Your task to perform on an android device: Go to notification settings Image 0: 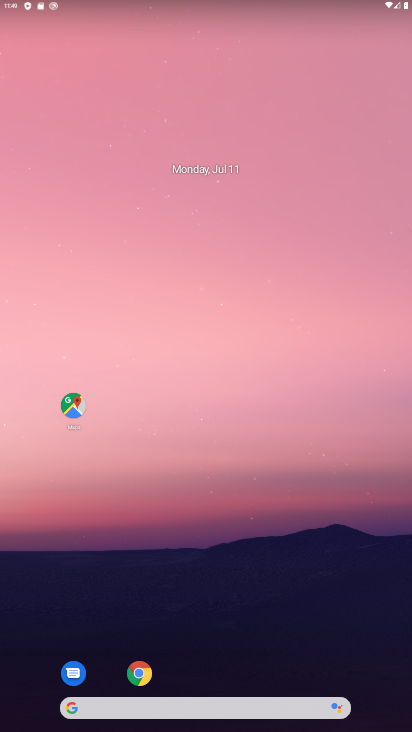
Step 0: click (219, 111)
Your task to perform on an android device: Go to notification settings Image 1: 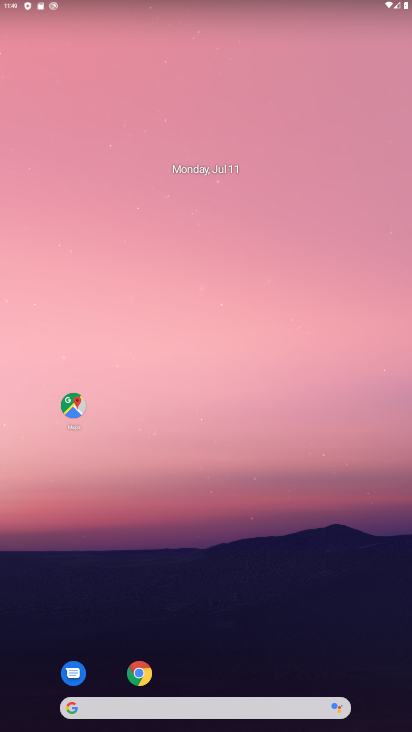
Step 1: drag from (273, 625) to (225, 175)
Your task to perform on an android device: Go to notification settings Image 2: 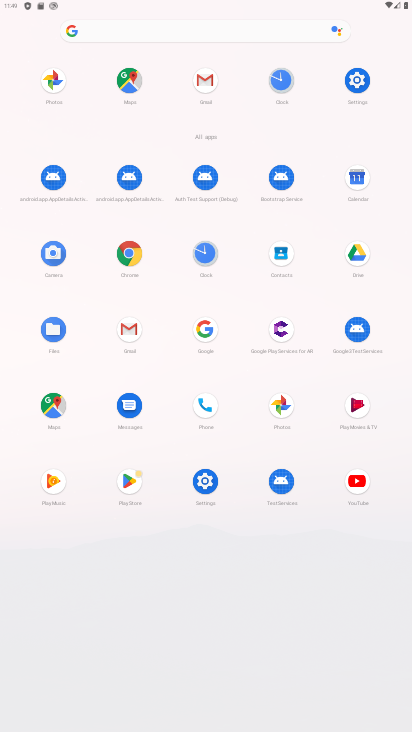
Step 2: click (360, 76)
Your task to perform on an android device: Go to notification settings Image 3: 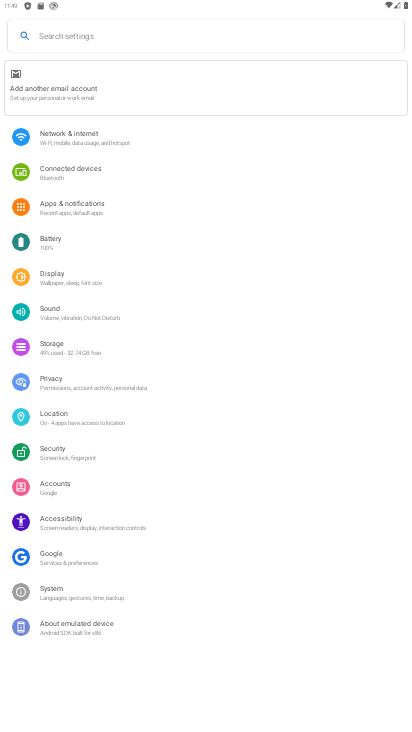
Step 3: click (217, 193)
Your task to perform on an android device: Go to notification settings Image 4: 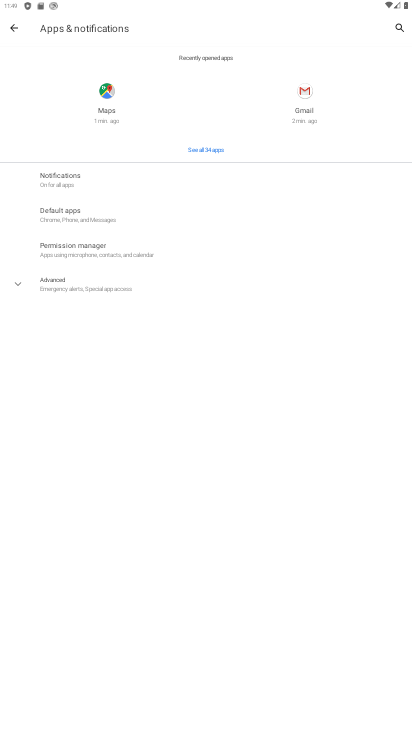
Step 4: click (126, 182)
Your task to perform on an android device: Go to notification settings Image 5: 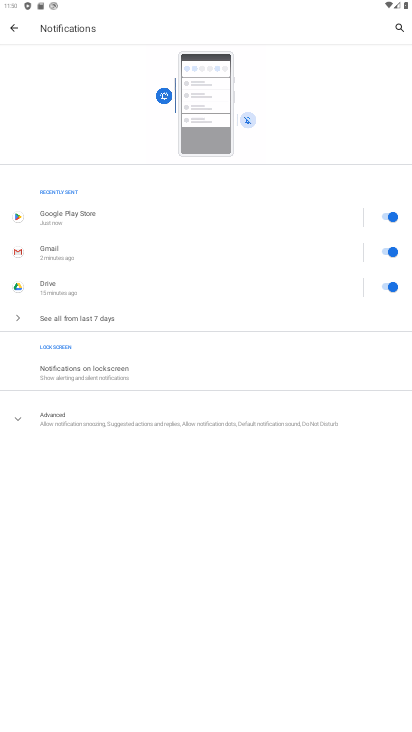
Step 5: task complete